Your task to perform on an android device: turn off improve location accuracy Image 0: 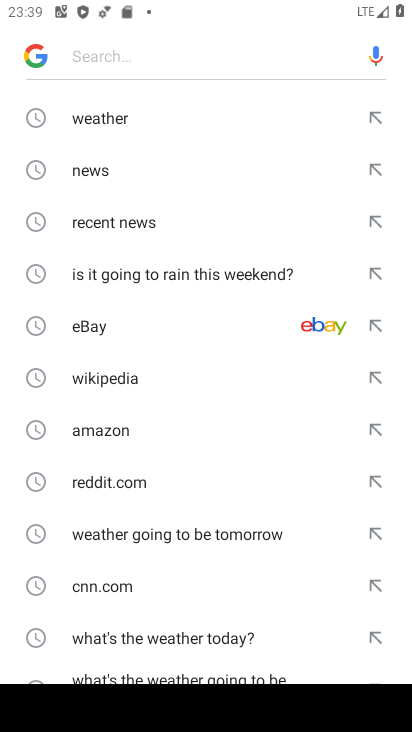
Step 0: press home button
Your task to perform on an android device: turn off improve location accuracy Image 1: 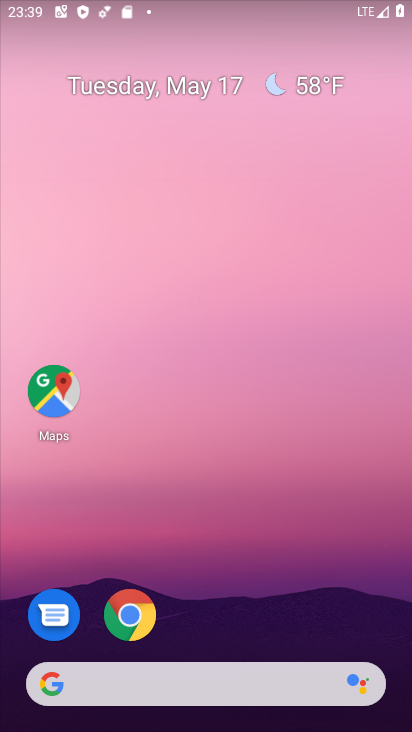
Step 1: drag from (203, 624) to (215, 169)
Your task to perform on an android device: turn off improve location accuracy Image 2: 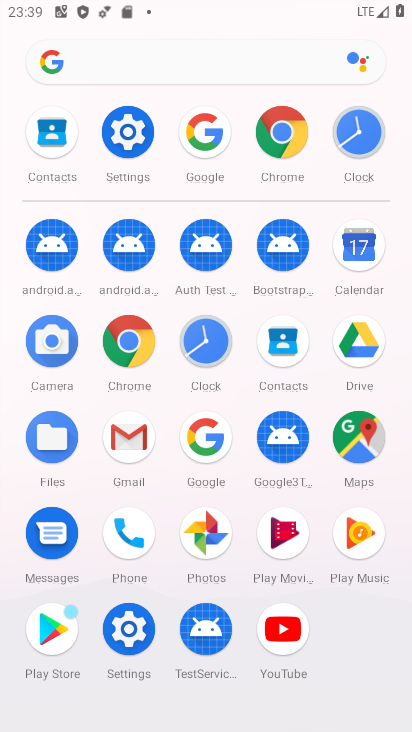
Step 2: click (118, 135)
Your task to perform on an android device: turn off improve location accuracy Image 3: 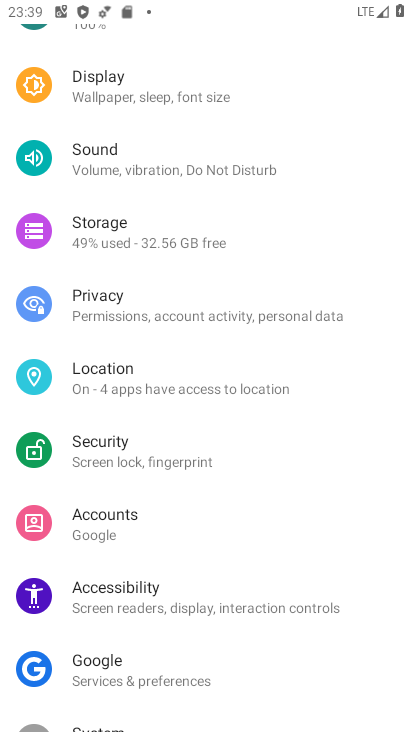
Step 3: click (138, 379)
Your task to perform on an android device: turn off improve location accuracy Image 4: 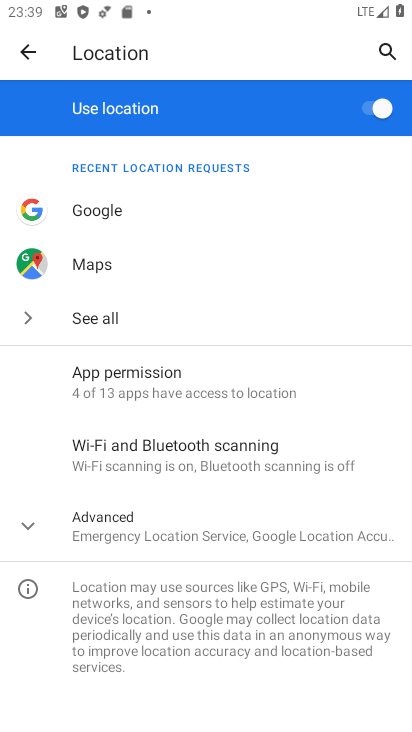
Step 4: click (135, 516)
Your task to perform on an android device: turn off improve location accuracy Image 5: 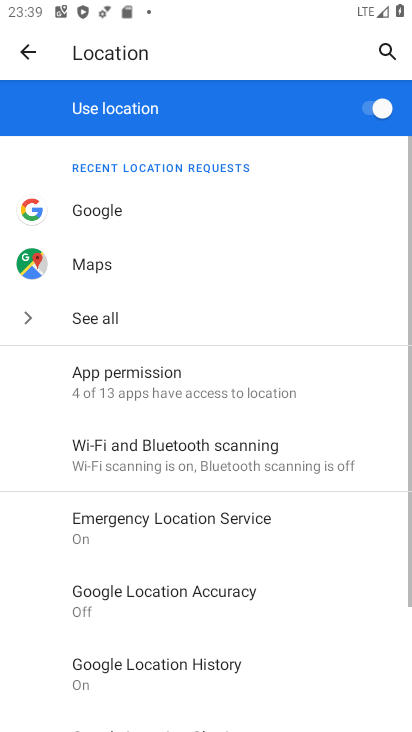
Step 5: drag from (135, 516) to (161, 343)
Your task to perform on an android device: turn off improve location accuracy Image 6: 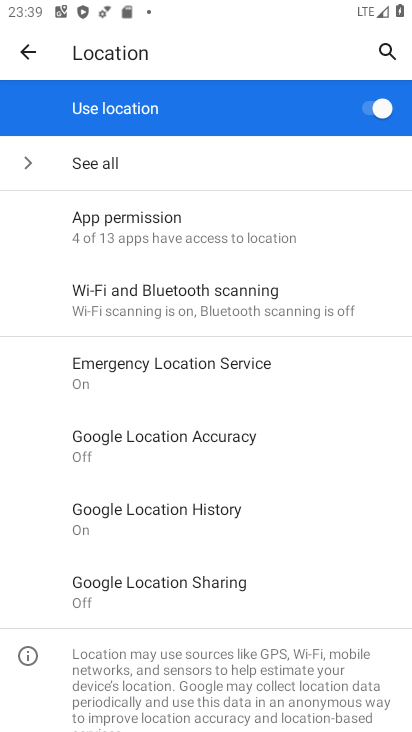
Step 6: click (151, 445)
Your task to perform on an android device: turn off improve location accuracy Image 7: 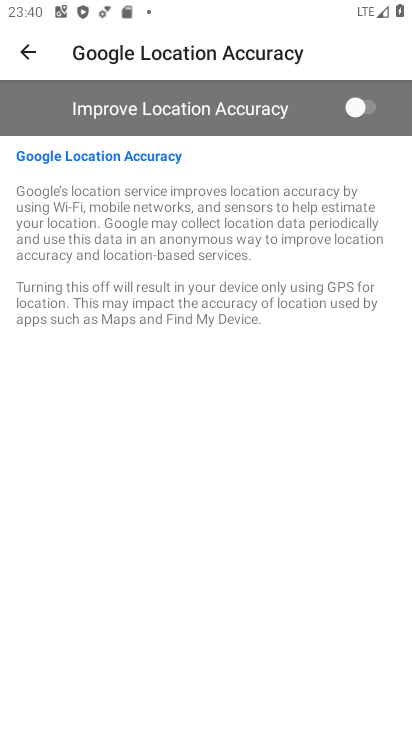
Step 7: task complete